Your task to perform on an android device: turn off location Image 0: 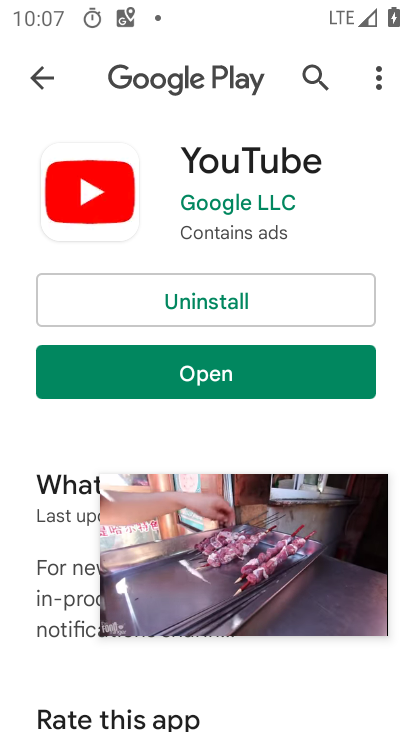
Step 0: press home button
Your task to perform on an android device: turn off location Image 1: 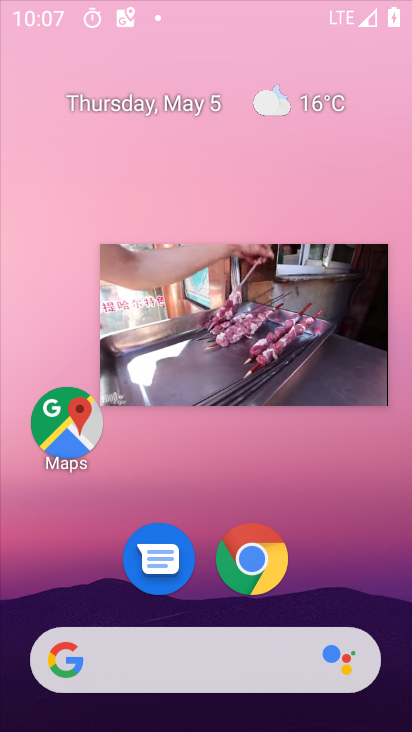
Step 1: click (277, 532)
Your task to perform on an android device: turn off location Image 2: 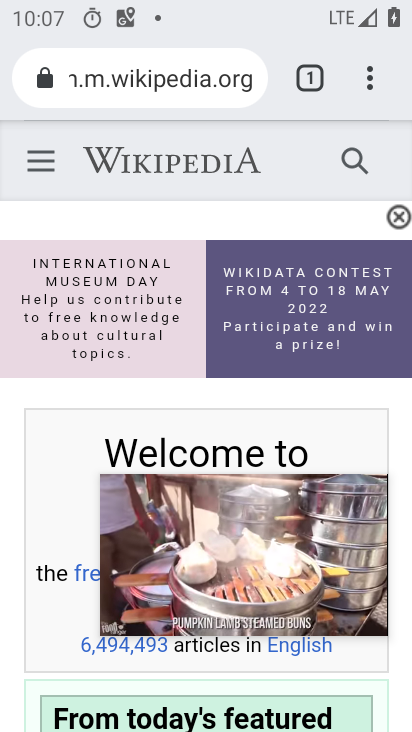
Step 2: click (238, 545)
Your task to perform on an android device: turn off location Image 3: 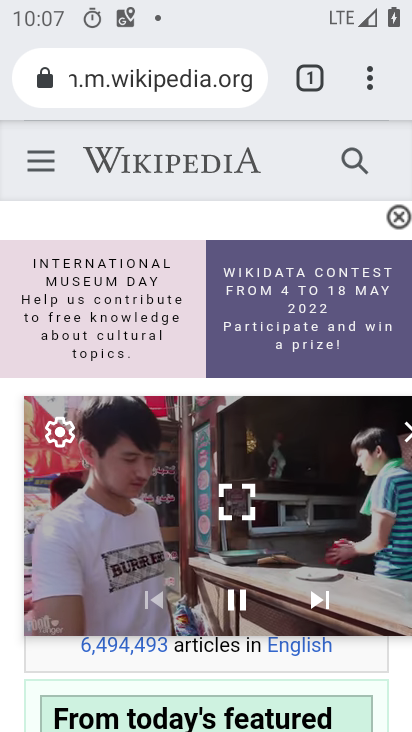
Step 3: click (405, 437)
Your task to perform on an android device: turn off location Image 4: 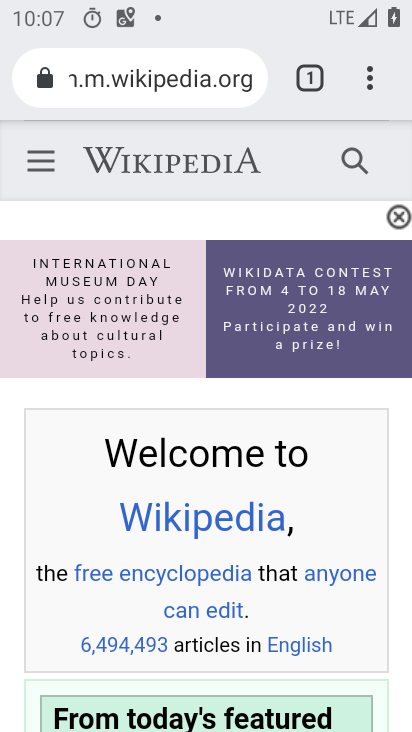
Step 4: press home button
Your task to perform on an android device: turn off location Image 5: 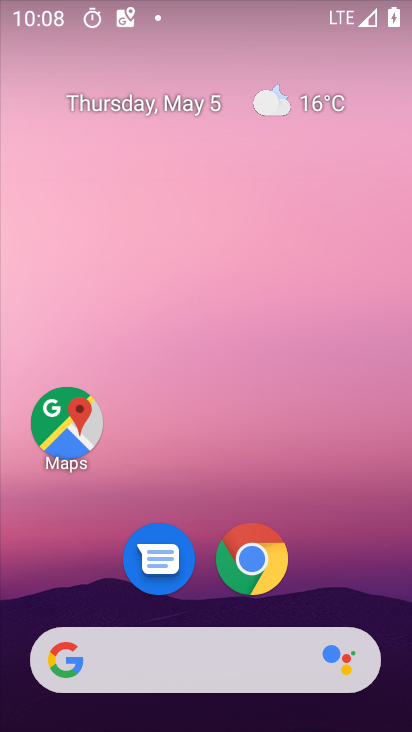
Step 5: drag from (206, 610) to (207, 195)
Your task to perform on an android device: turn off location Image 6: 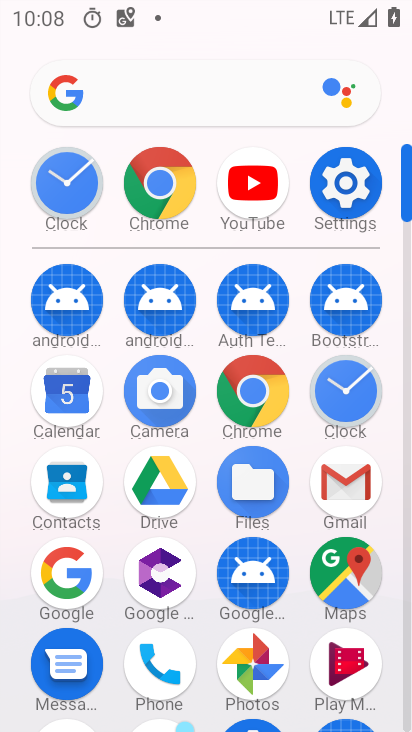
Step 6: click (357, 199)
Your task to perform on an android device: turn off location Image 7: 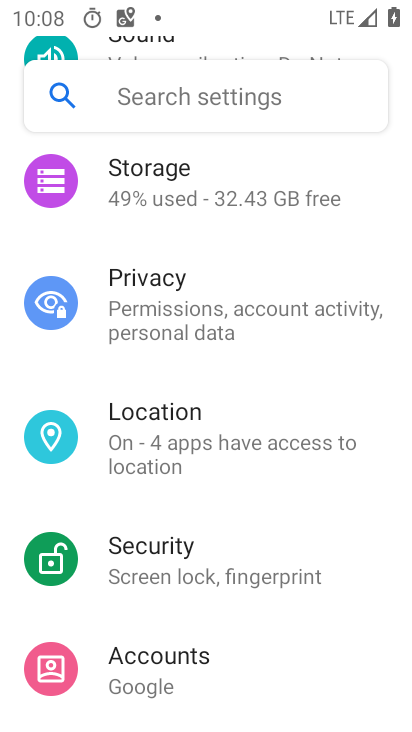
Step 7: click (206, 467)
Your task to perform on an android device: turn off location Image 8: 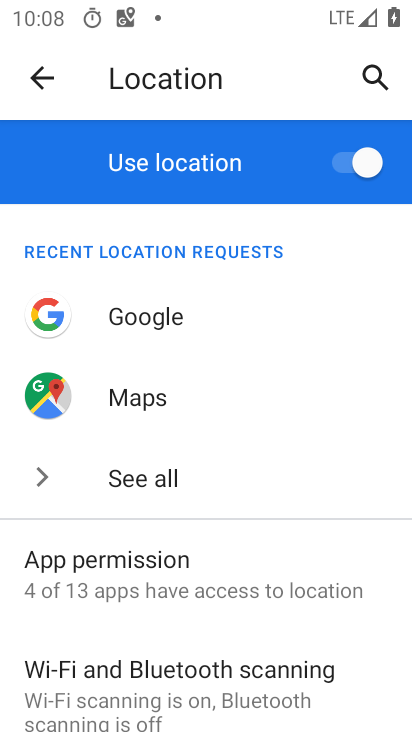
Step 8: click (346, 168)
Your task to perform on an android device: turn off location Image 9: 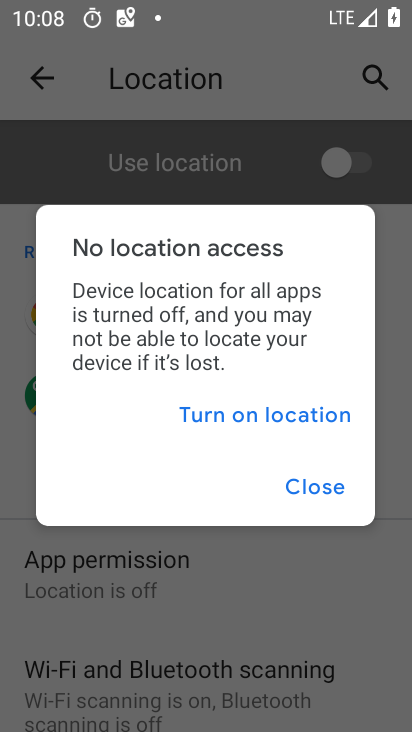
Step 9: click (320, 489)
Your task to perform on an android device: turn off location Image 10: 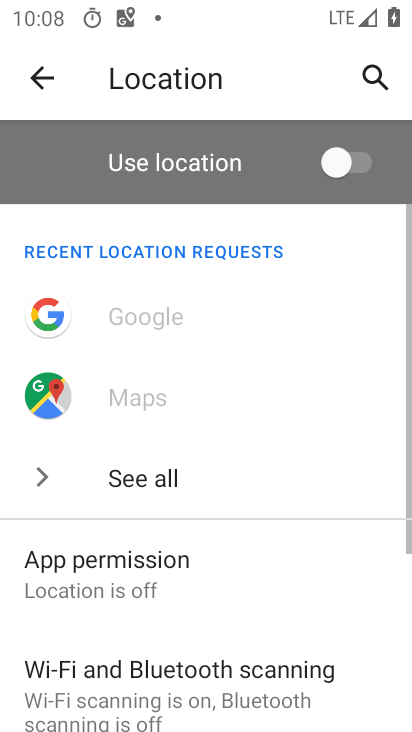
Step 10: task complete